Your task to perform on an android device: turn off data saver in the chrome app Image 0: 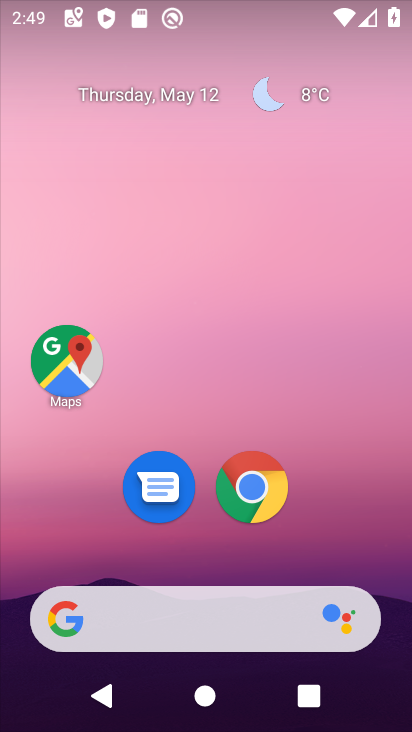
Step 0: click (253, 483)
Your task to perform on an android device: turn off data saver in the chrome app Image 1: 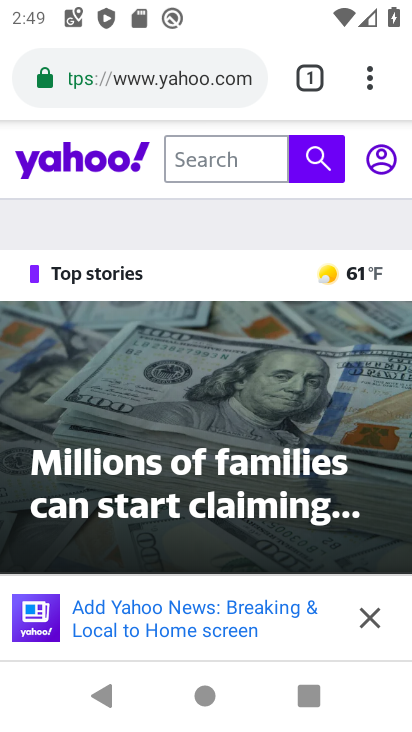
Step 1: drag from (381, 75) to (163, 558)
Your task to perform on an android device: turn off data saver in the chrome app Image 2: 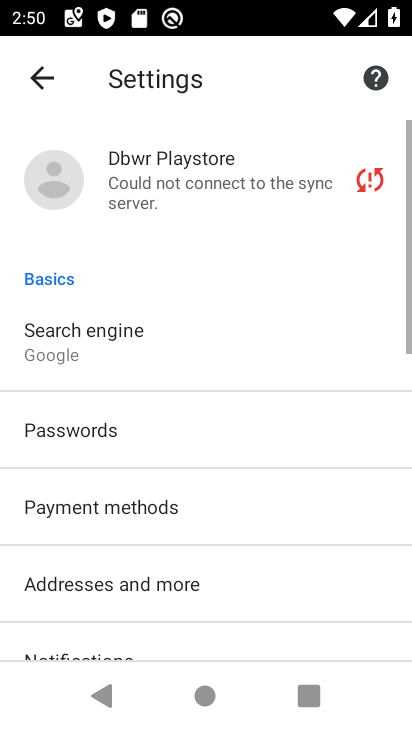
Step 2: drag from (208, 582) to (235, 33)
Your task to perform on an android device: turn off data saver in the chrome app Image 3: 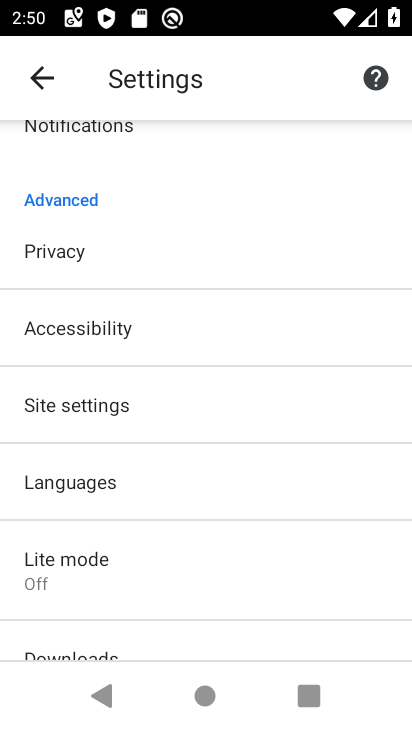
Step 3: drag from (148, 583) to (215, 353)
Your task to perform on an android device: turn off data saver in the chrome app Image 4: 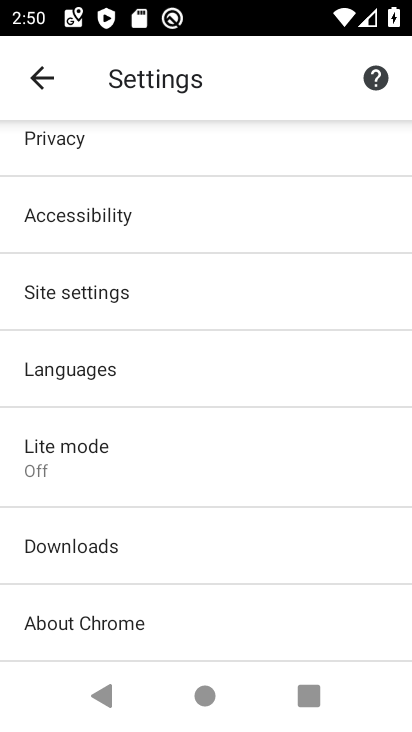
Step 4: click (141, 443)
Your task to perform on an android device: turn off data saver in the chrome app Image 5: 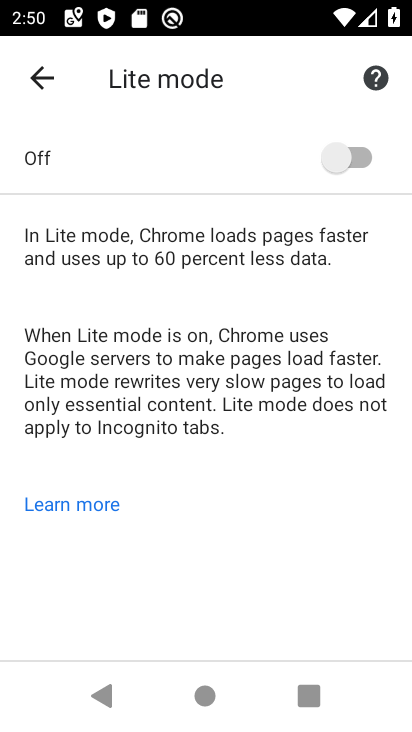
Step 5: task complete